Your task to perform on an android device: toggle javascript in the chrome app Image 0: 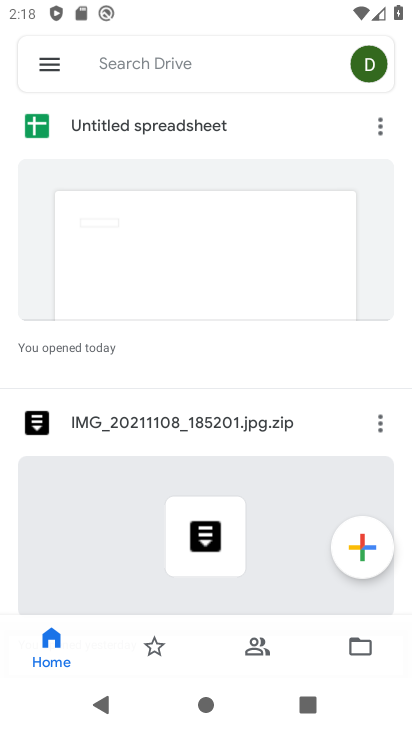
Step 0: press home button
Your task to perform on an android device: toggle javascript in the chrome app Image 1: 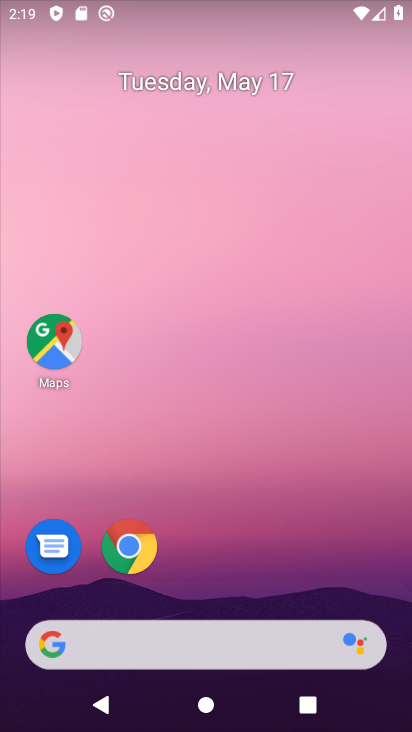
Step 1: click (146, 555)
Your task to perform on an android device: toggle javascript in the chrome app Image 2: 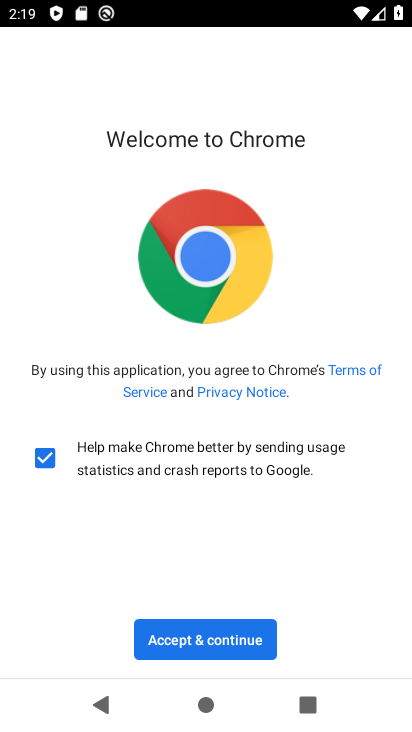
Step 2: click (211, 634)
Your task to perform on an android device: toggle javascript in the chrome app Image 3: 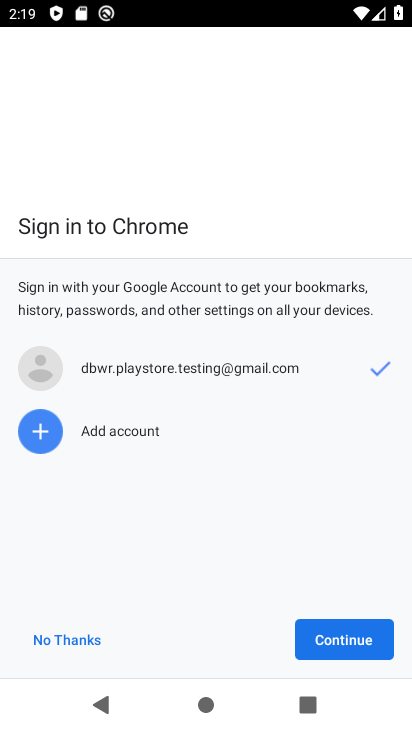
Step 3: click (350, 645)
Your task to perform on an android device: toggle javascript in the chrome app Image 4: 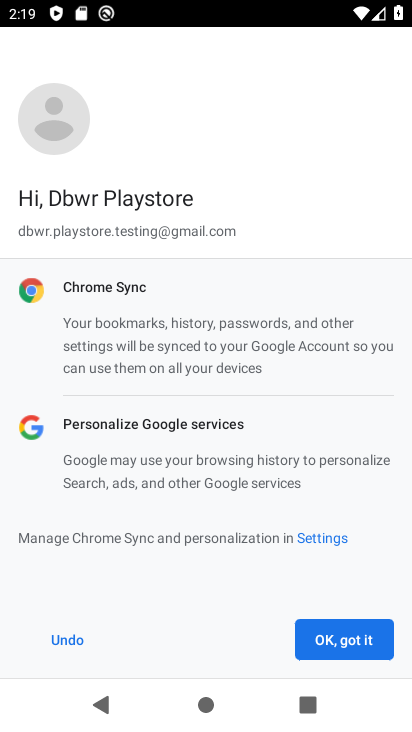
Step 4: click (350, 645)
Your task to perform on an android device: toggle javascript in the chrome app Image 5: 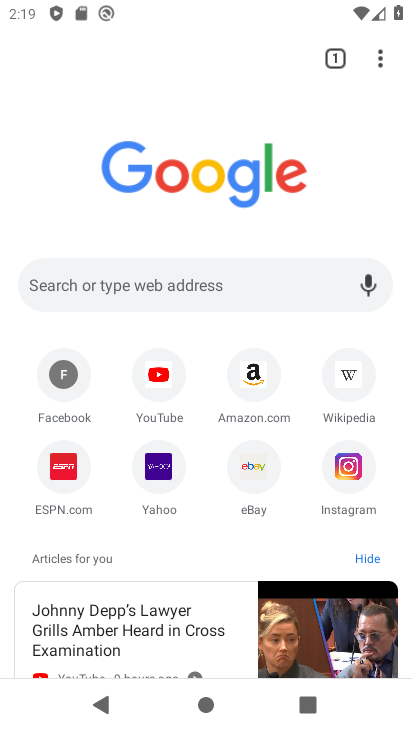
Step 5: click (384, 51)
Your task to perform on an android device: toggle javascript in the chrome app Image 6: 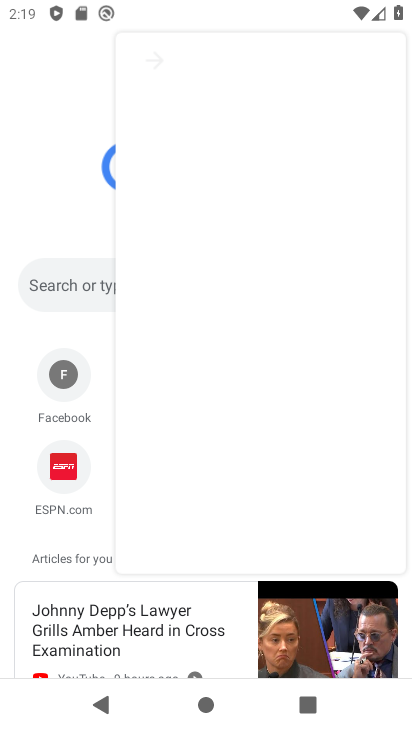
Step 6: click (384, 51)
Your task to perform on an android device: toggle javascript in the chrome app Image 7: 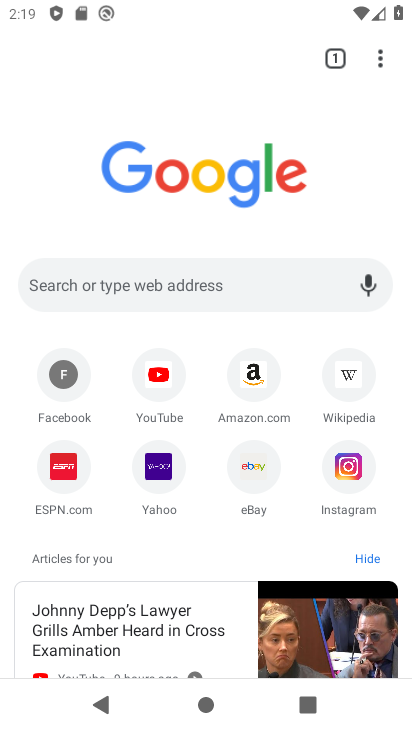
Step 7: click (384, 65)
Your task to perform on an android device: toggle javascript in the chrome app Image 8: 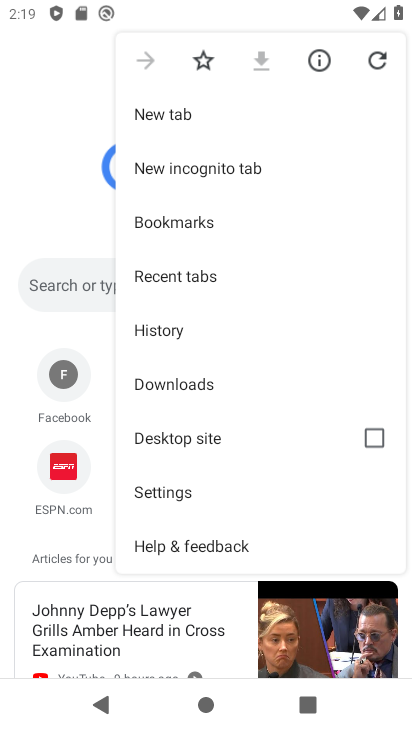
Step 8: click (191, 497)
Your task to perform on an android device: toggle javascript in the chrome app Image 9: 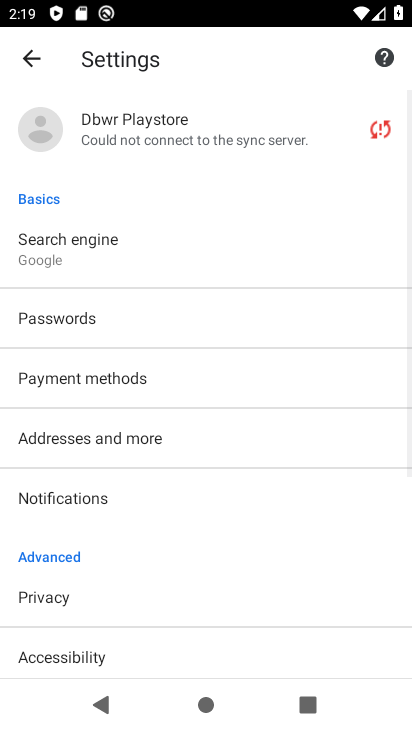
Step 9: drag from (99, 563) to (126, 275)
Your task to perform on an android device: toggle javascript in the chrome app Image 10: 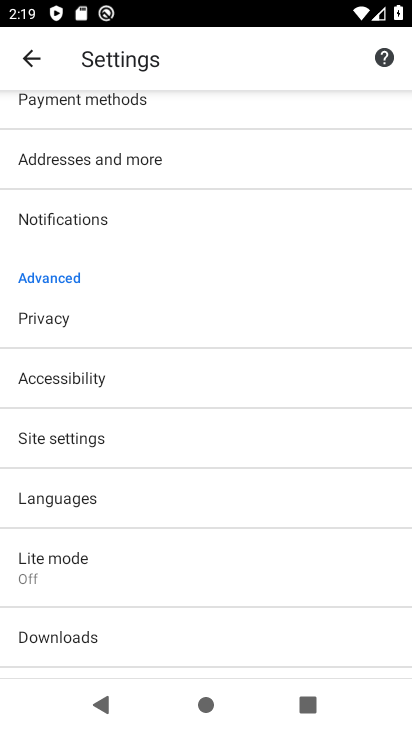
Step 10: click (83, 442)
Your task to perform on an android device: toggle javascript in the chrome app Image 11: 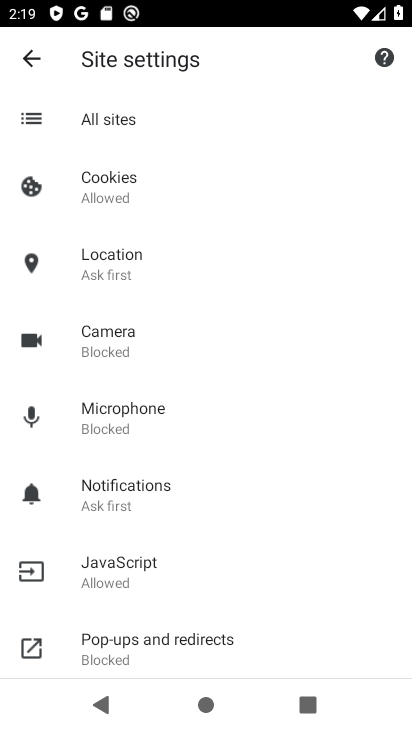
Step 11: click (143, 566)
Your task to perform on an android device: toggle javascript in the chrome app Image 12: 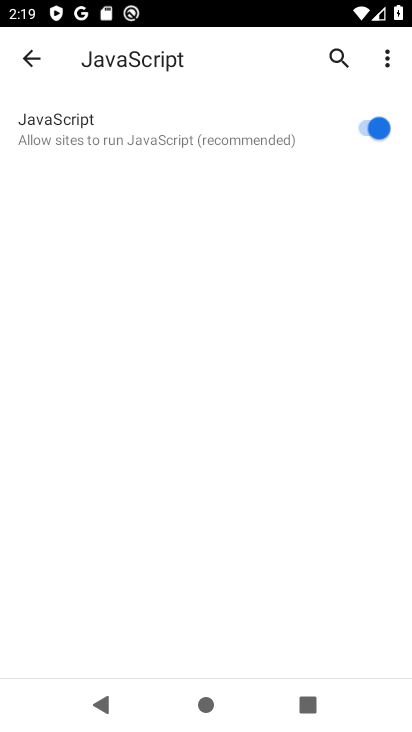
Step 12: click (358, 123)
Your task to perform on an android device: toggle javascript in the chrome app Image 13: 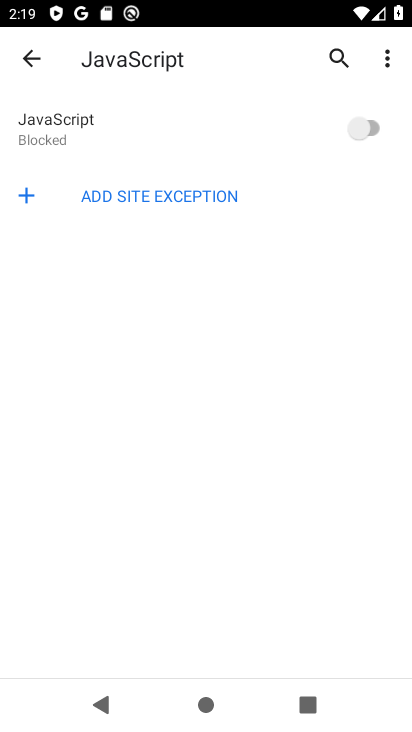
Step 13: task complete